Your task to perform on an android device: Go to privacy settings Image 0: 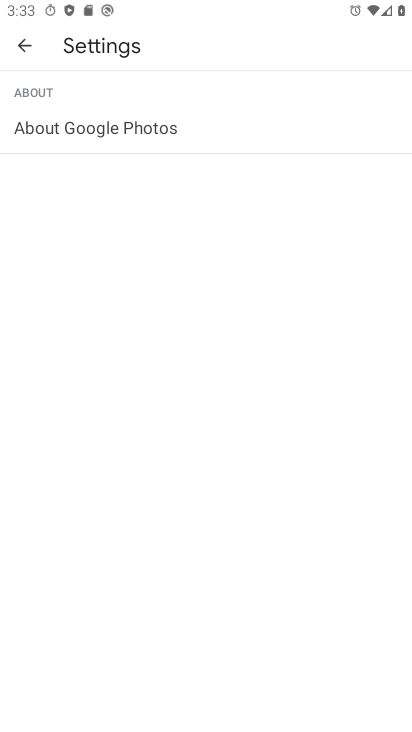
Step 0: press home button
Your task to perform on an android device: Go to privacy settings Image 1: 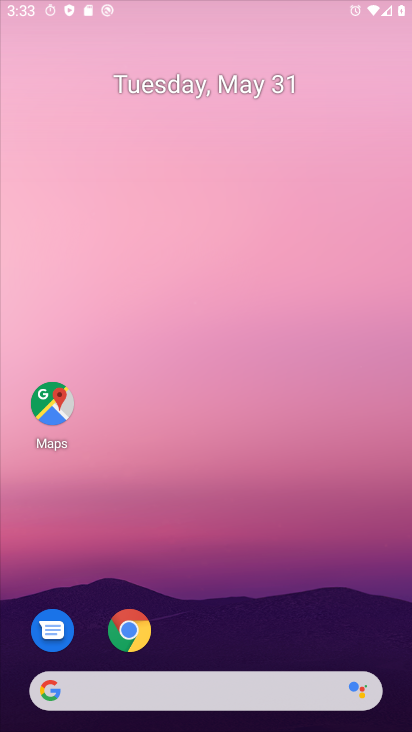
Step 1: drag from (282, 706) to (265, 22)
Your task to perform on an android device: Go to privacy settings Image 2: 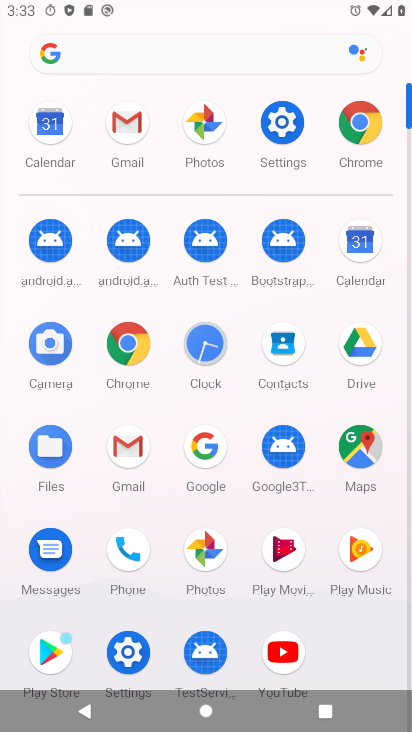
Step 2: click (284, 130)
Your task to perform on an android device: Go to privacy settings Image 3: 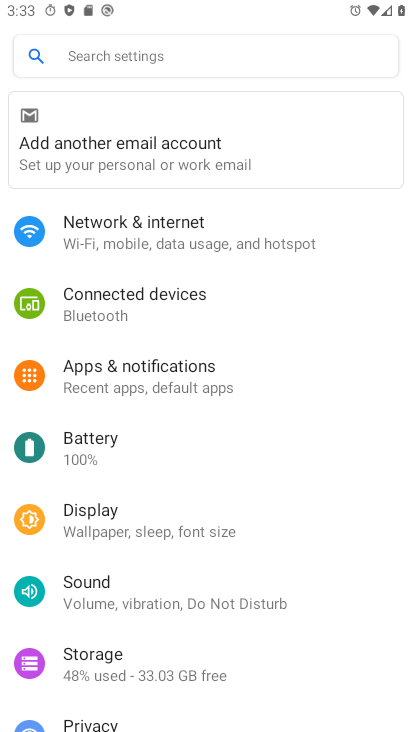
Step 3: click (126, 724)
Your task to perform on an android device: Go to privacy settings Image 4: 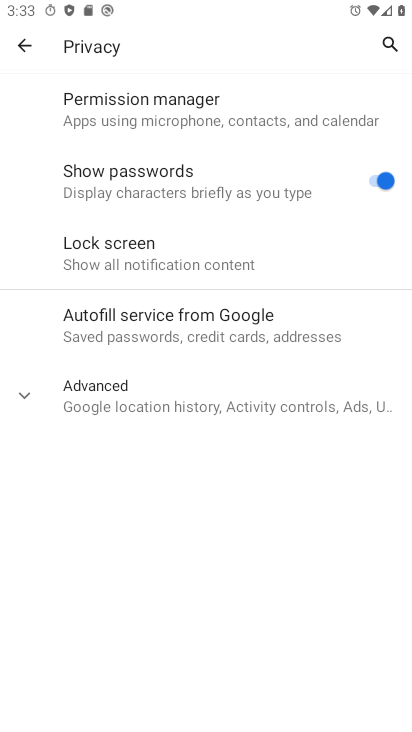
Step 4: task complete